Your task to perform on an android device: Open Google Chrome Image 0: 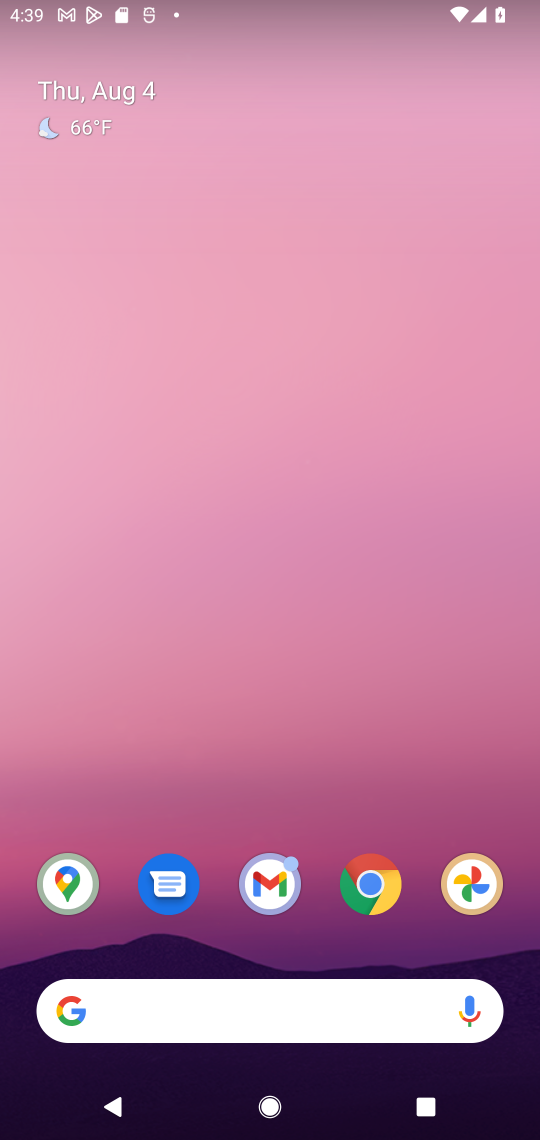
Step 0: click (341, 874)
Your task to perform on an android device: Open Google Chrome Image 1: 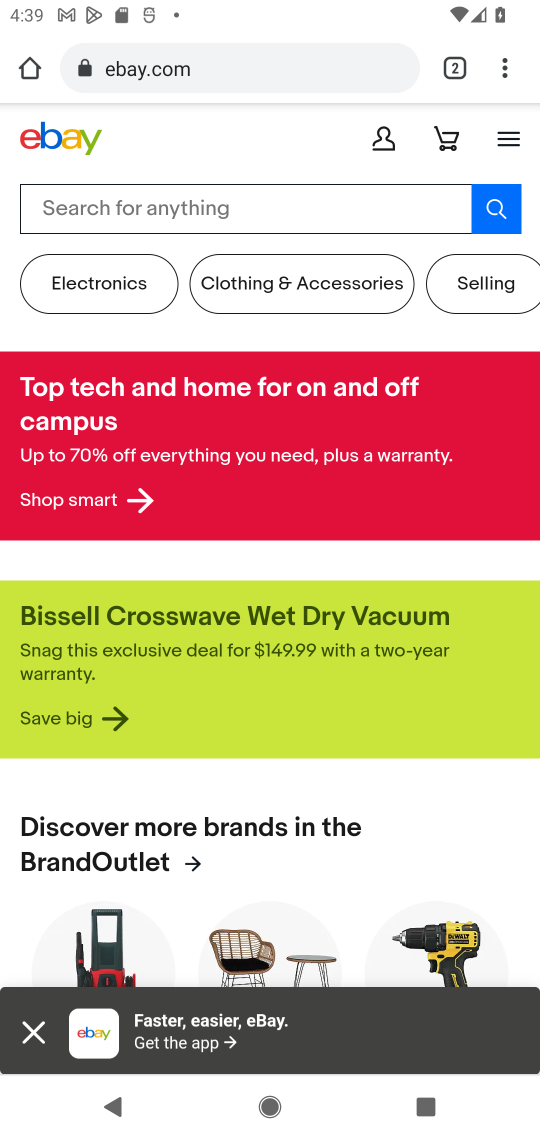
Step 1: task complete